Your task to perform on an android device: turn on wifi Image 0: 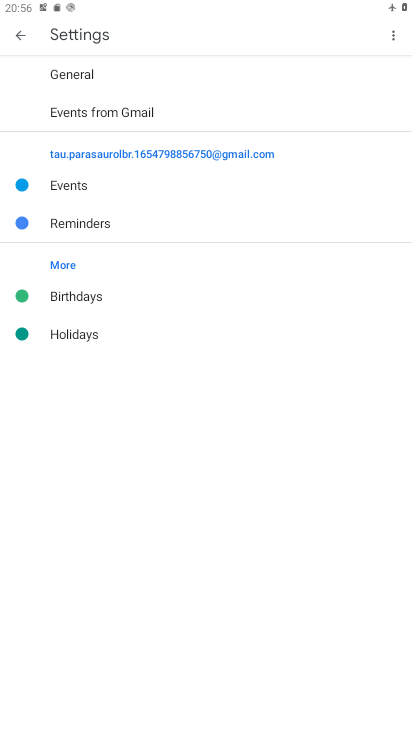
Step 0: drag from (325, 679) to (269, 232)
Your task to perform on an android device: turn on wifi Image 1: 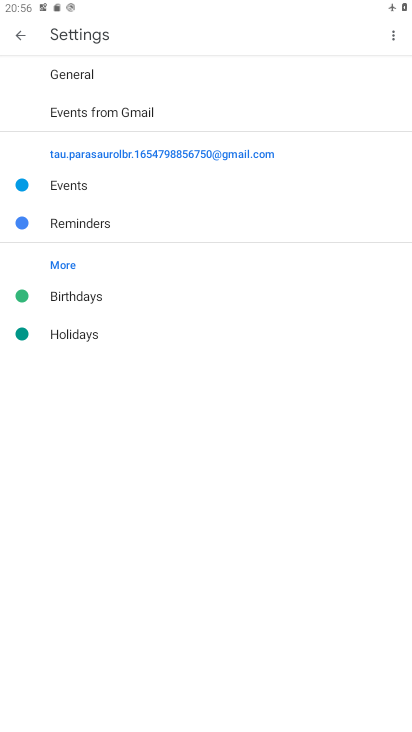
Step 1: click (18, 28)
Your task to perform on an android device: turn on wifi Image 2: 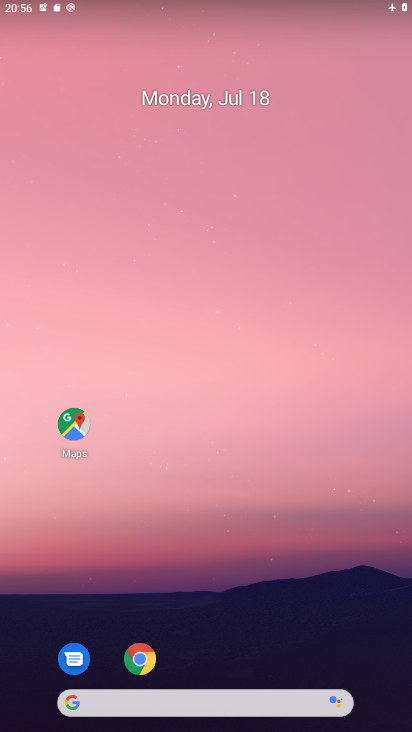
Step 2: drag from (197, 640) to (169, 271)
Your task to perform on an android device: turn on wifi Image 3: 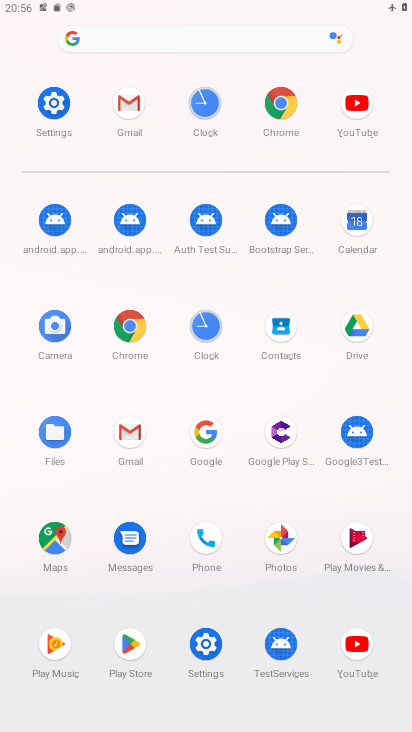
Step 3: click (197, 637)
Your task to perform on an android device: turn on wifi Image 4: 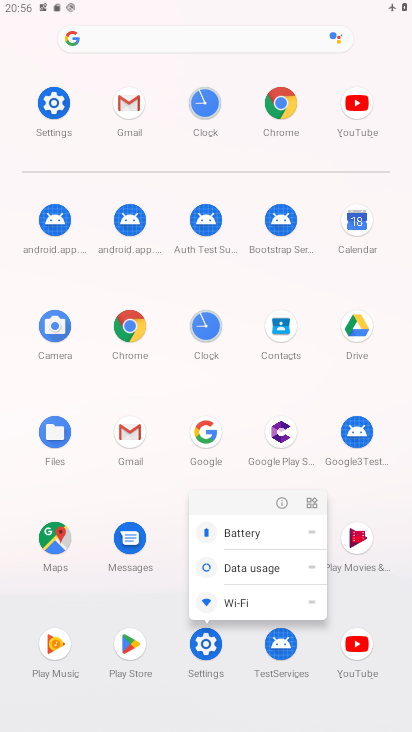
Step 4: click (196, 641)
Your task to perform on an android device: turn on wifi Image 5: 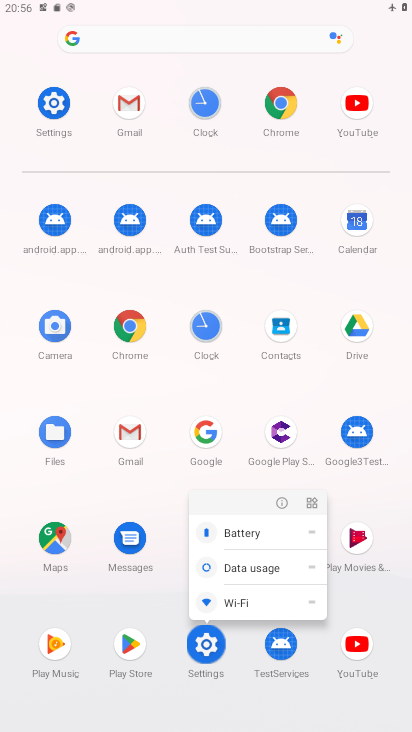
Step 5: click (196, 641)
Your task to perform on an android device: turn on wifi Image 6: 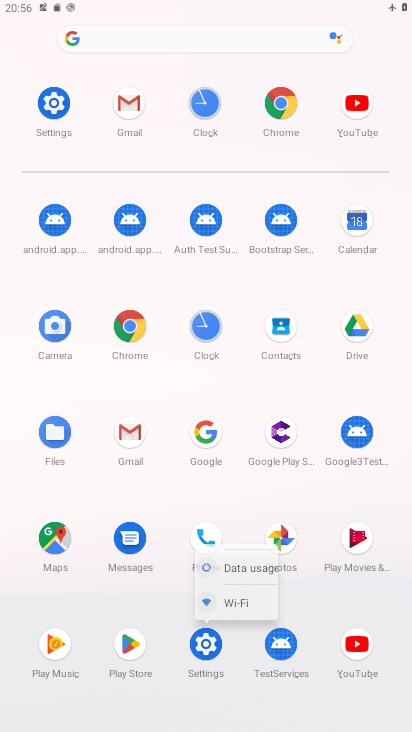
Step 6: click (201, 649)
Your task to perform on an android device: turn on wifi Image 7: 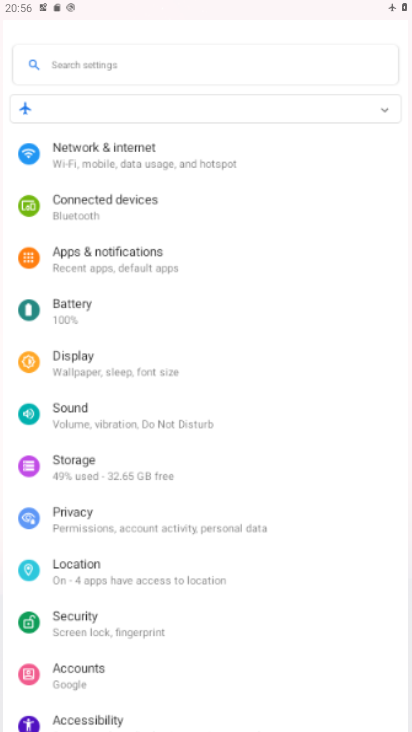
Step 7: click (200, 651)
Your task to perform on an android device: turn on wifi Image 8: 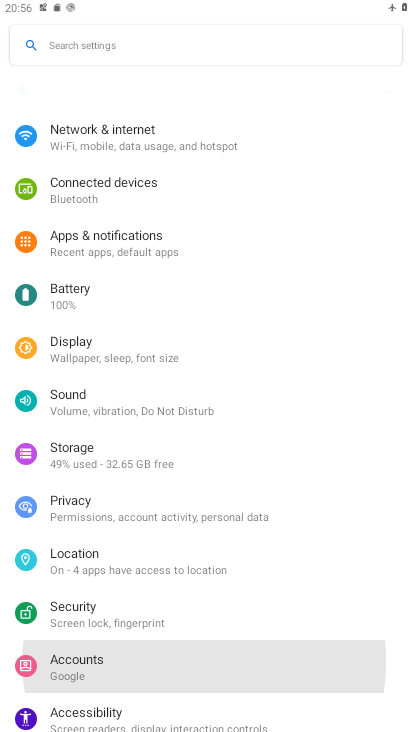
Step 8: click (228, 628)
Your task to perform on an android device: turn on wifi Image 9: 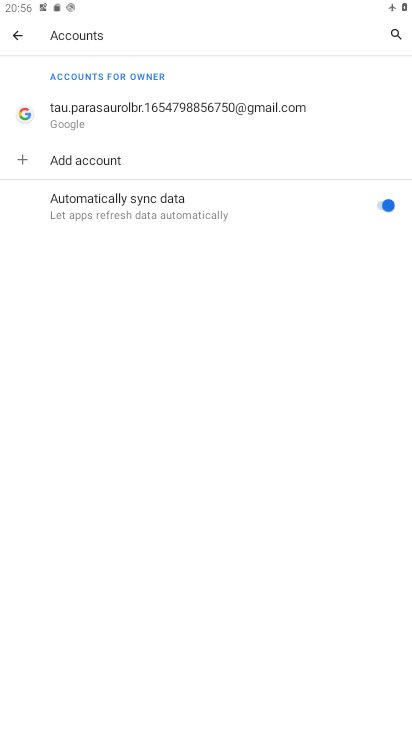
Step 9: click (25, 23)
Your task to perform on an android device: turn on wifi Image 10: 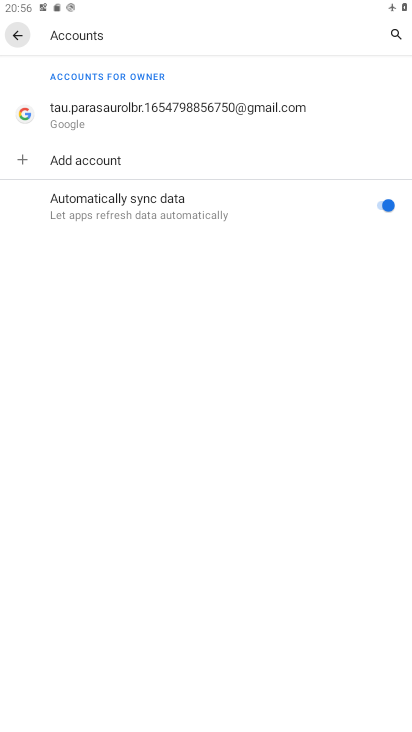
Step 10: click (25, 26)
Your task to perform on an android device: turn on wifi Image 11: 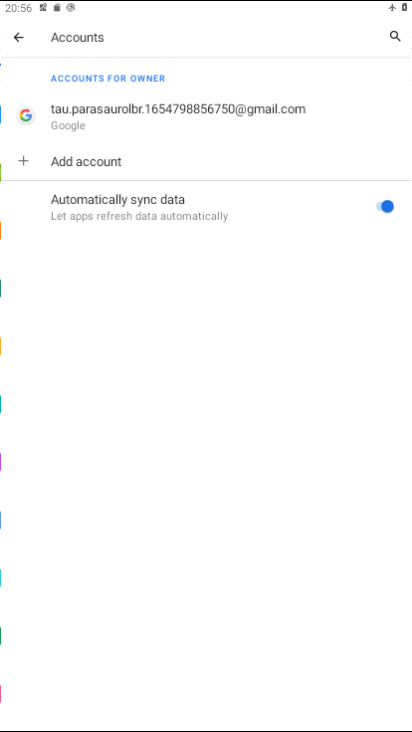
Step 11: click (23, 30)
Your task to perform on an android device: turn on wifi Image 12: 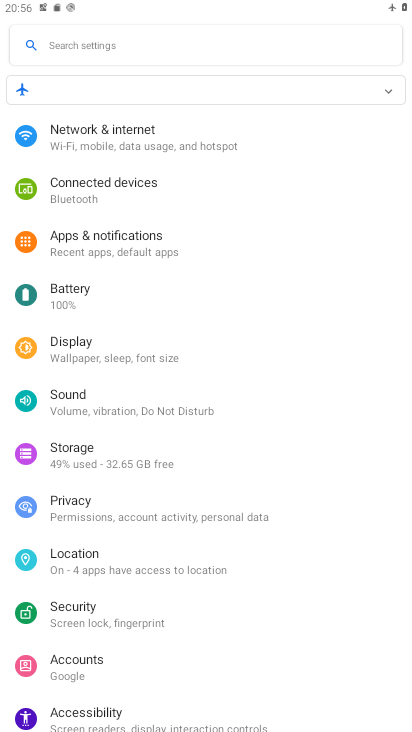
Step 12: click (106, 136)
Your task to perform on an android device: turn on wifi Image 13: 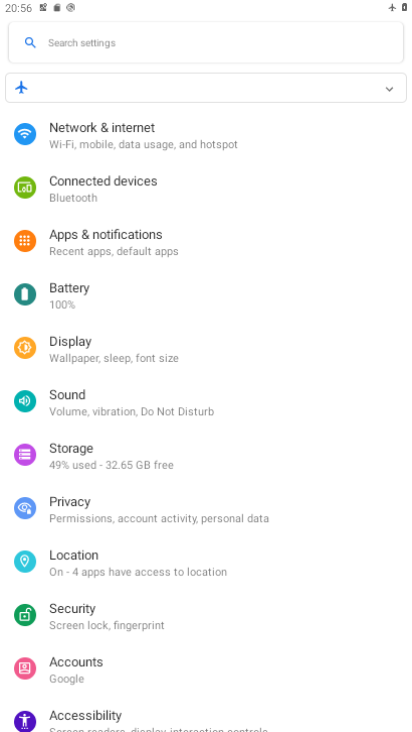
Step 13: click (114, 136)
Your task to perform on an android device: turn on wifi Image 14: 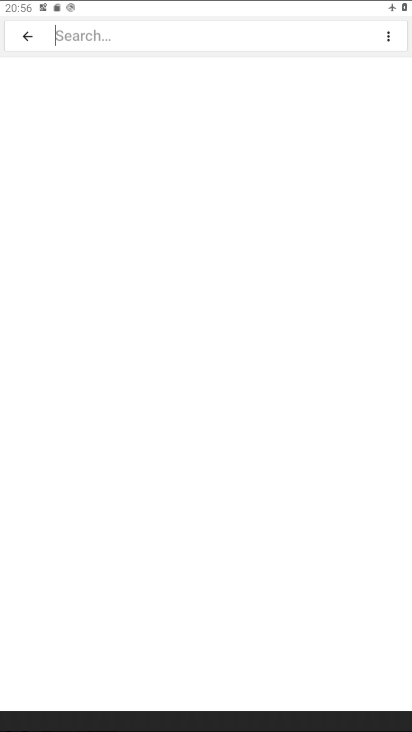
Step 14: click (115, 137)
Your task to perform on an android device: turn on wifi Image 15: 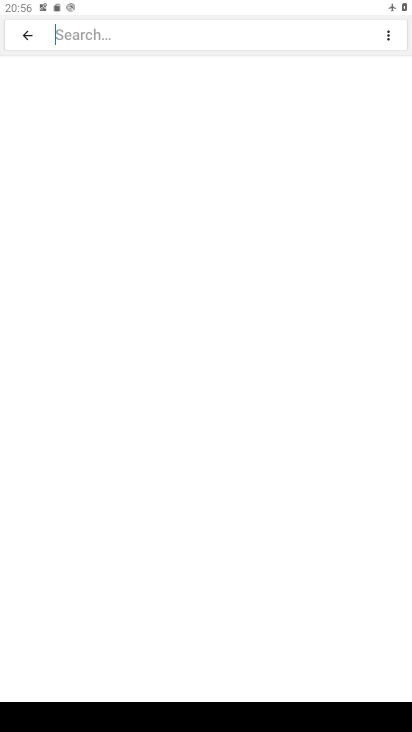
Step 15: click (29, 35)
Your task to perform on an android device: turn on wifi Image 16: 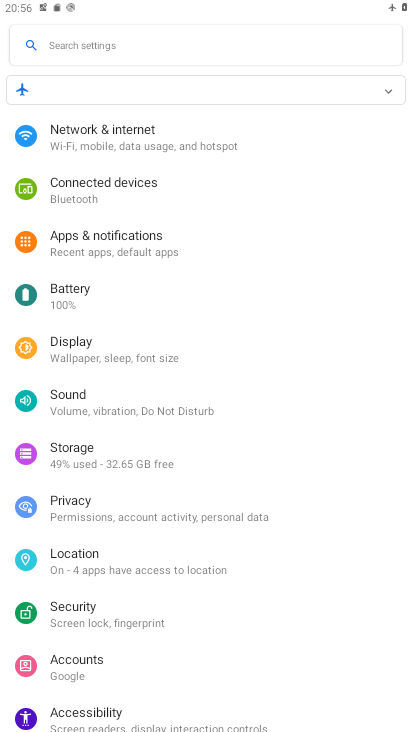
Step 16: click (85, 137)
Your task to perform on an android device: turn on wifi Image 17: 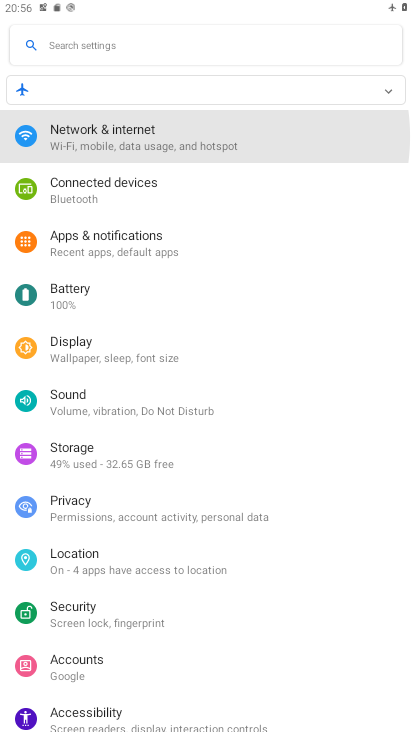
Step 17: click (90, 134)
Your task to perform on an android device: turn on wifi Image 18: 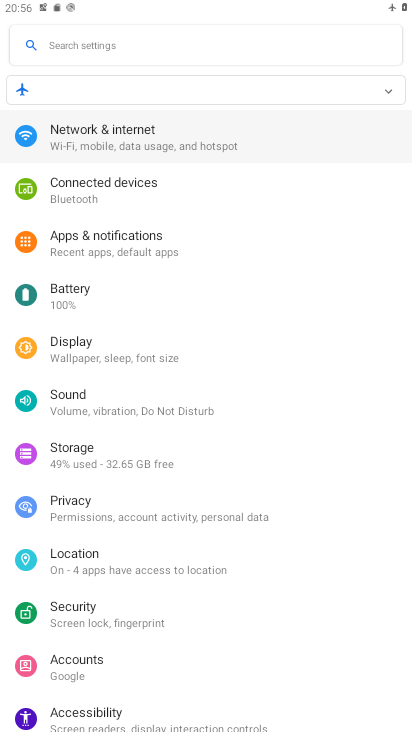
Step 18: click (98, 131)
Your task to perform on an android device: turn on wifi Image 19: 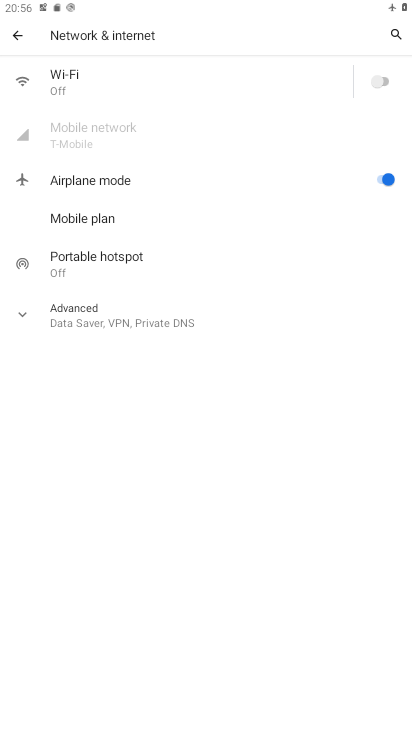
Step 19: click (379, 73)
Your task to perform on an android device: turn on wifi Image 20: 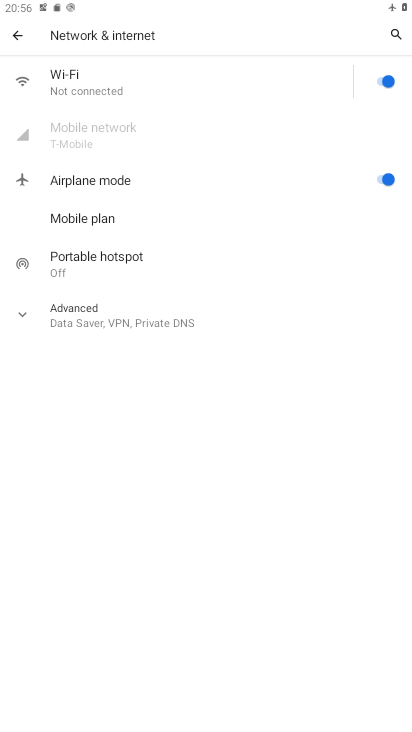
Step 20: click (388, 177)
Your task to perform on an android device: turn on wifi Image 21: 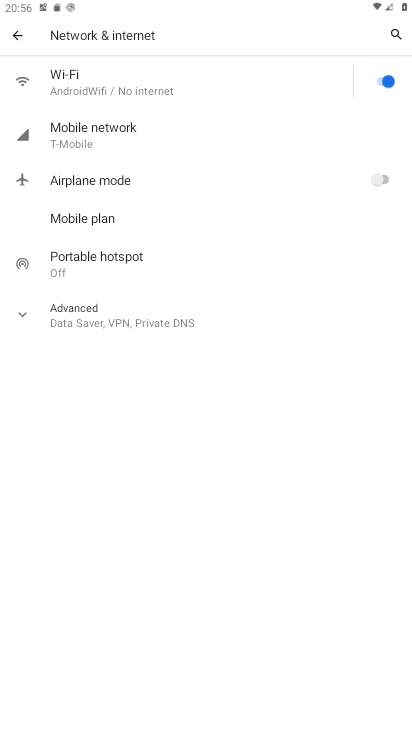
Step 21: task complete